Your task to perform on an android device: Open calendar and show me the second week of next month Image 0: 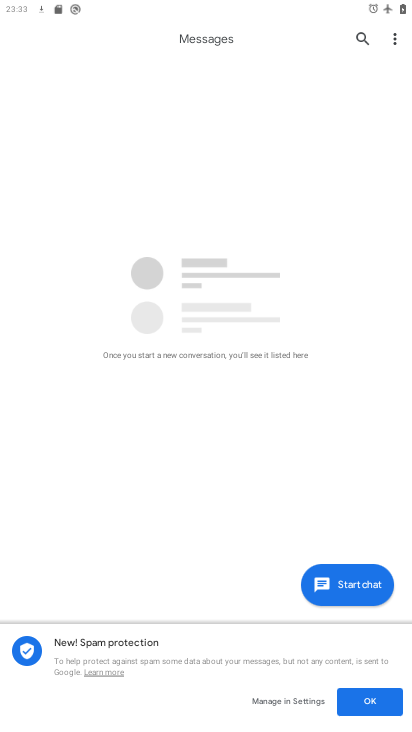
Step 0: press home button
Your task to perform on an android device: Open calendar and show me the second week of next month Image 1: 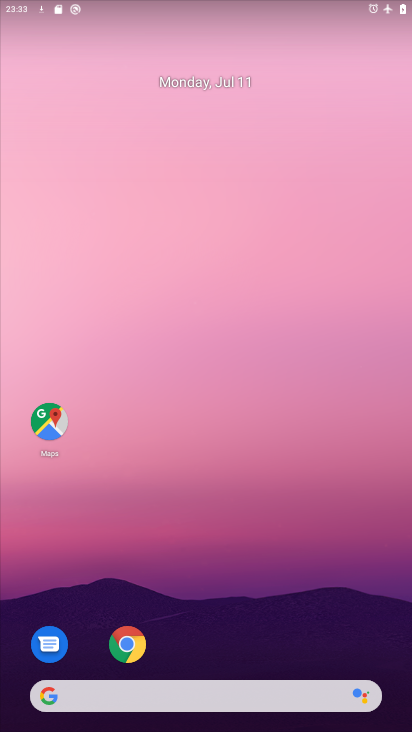
Step 1: drag from (253, 641) to (273, 0)
Your task to perform on an android device: Open calendar and show me the second week of next month Image 2: 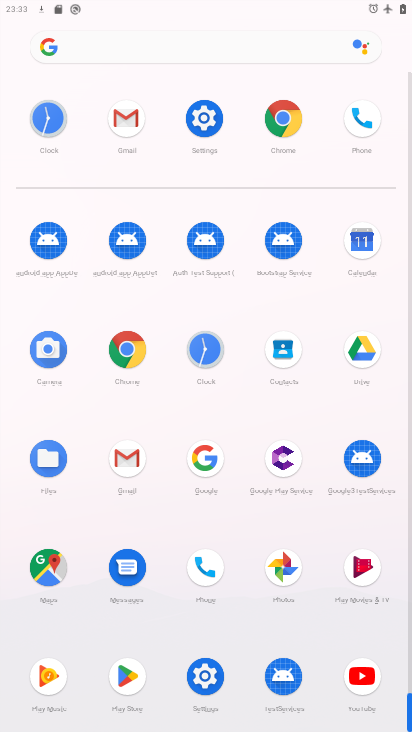
Step 2: click (371, 240)
Your task to perform on an android device: Open calendar and show me the second week of next month Image 3: 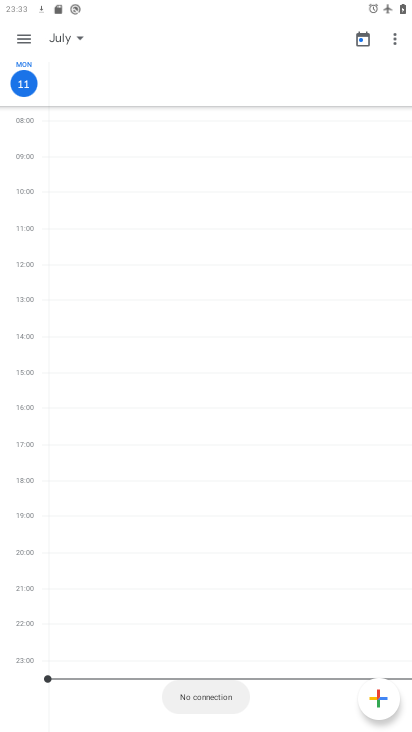
Step 3: click (19, 38)
Your task to perform on an android device: Open calendar and show me the second week of next month Image 4: 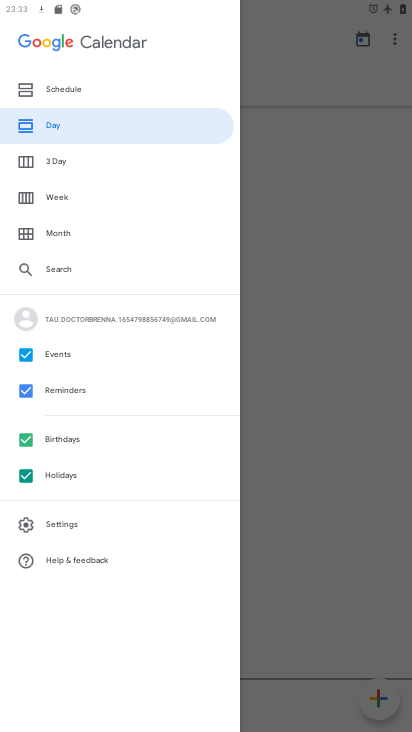
Step 4: click (74, 232)
Your task to perform on an android device: Open calendar and show me the second week of next month Image 5: 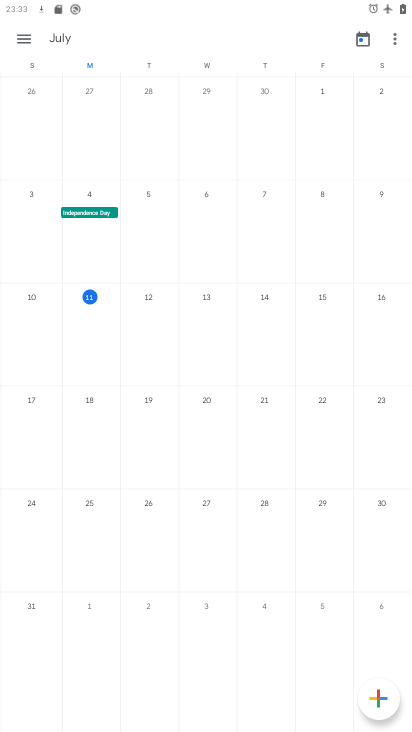
Step 5: task complete